Your task to perform on an android device: add a label to a message in the gmail app Image 0: 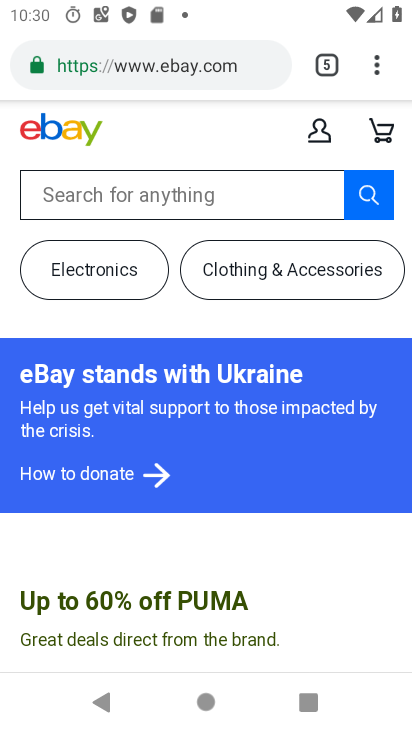
Step 0: press home button
Your task to perform on an android device: add a label to a message in the gmail app Image 1: 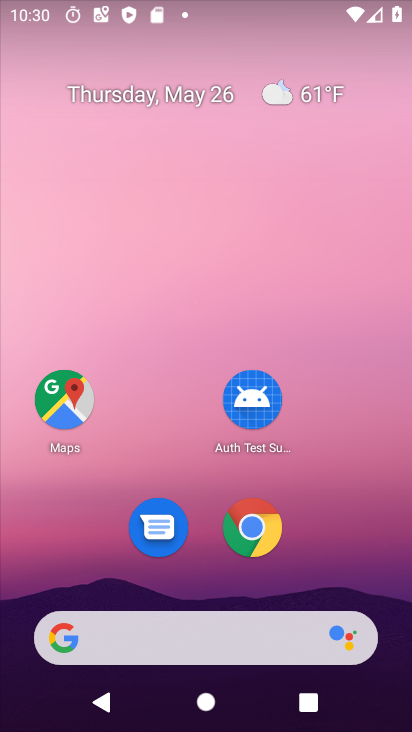
Step 1: drag from (359, 576) to (307, 146)
Your task to perform on an android device: add a label to a message in the gmail app Image 2: 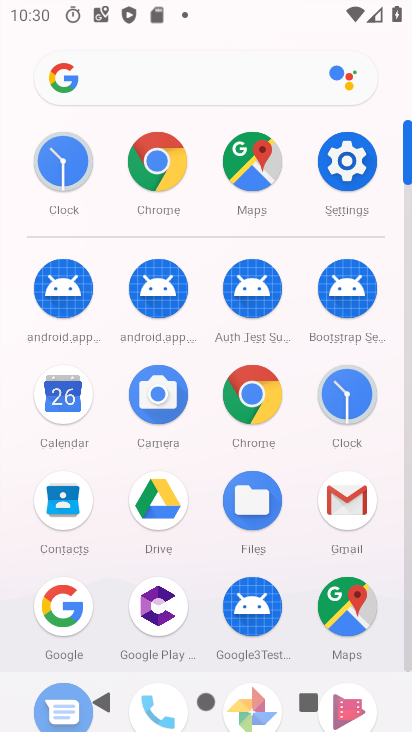
Step 2: click (338, 494)
Your task to perform on an android device: add a label to a message in the gmail app Image 3: 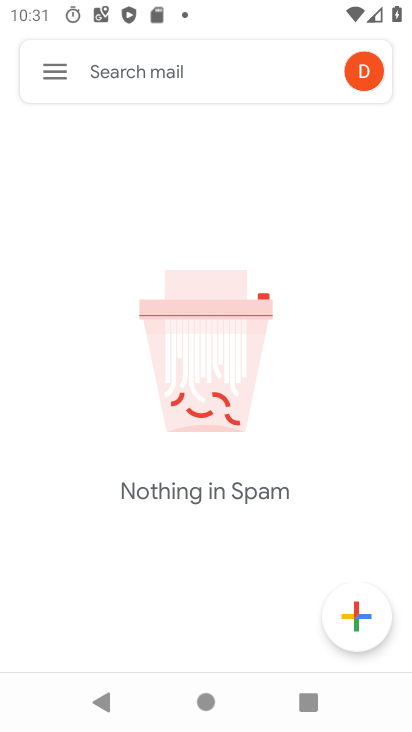
Step 3: click (55, 76)
Your task to perform on an android device: add a label to a message in the gmail app Image 4: 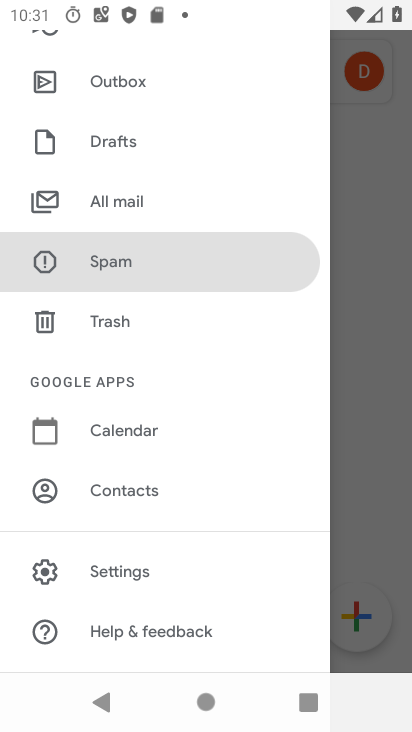
Step 4: click (141, 205)
Your task to perform on an android device: add a label to a message in the gmail app Image 5: 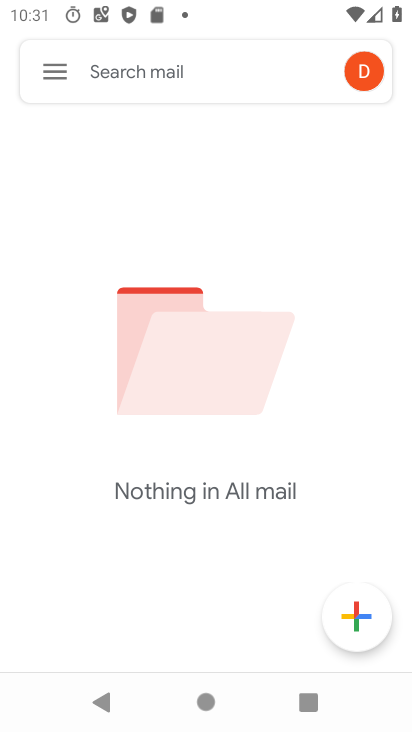
Step 5: task complete